Your task to perform on an android device: Is it going to rain this weekend? Image 0: 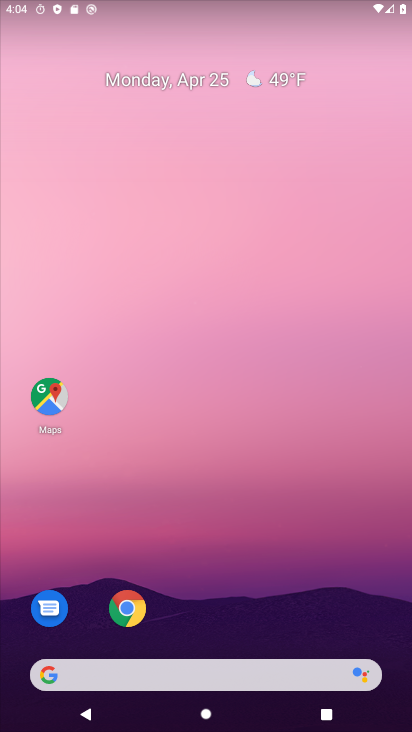
Step 0: drag from (219, 471) to (242, 176)
Your task to perform on an android device: Is it going to rain this weekend? Image 1: 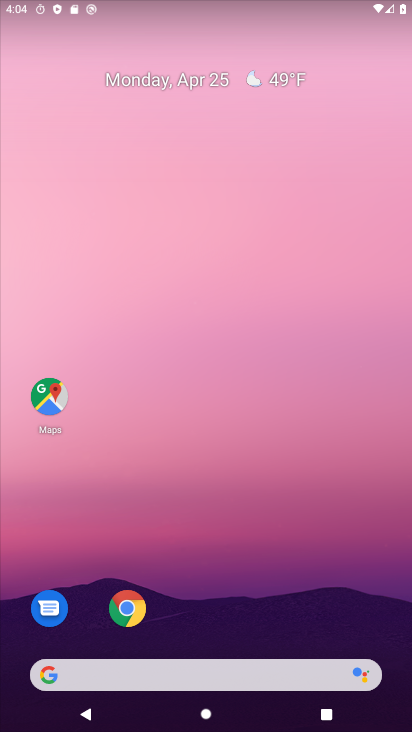
Step 1: drag from (199, 275) to (212, 173)
Your task to perform on an android device: Is it going to rain this weekend? Image 2: 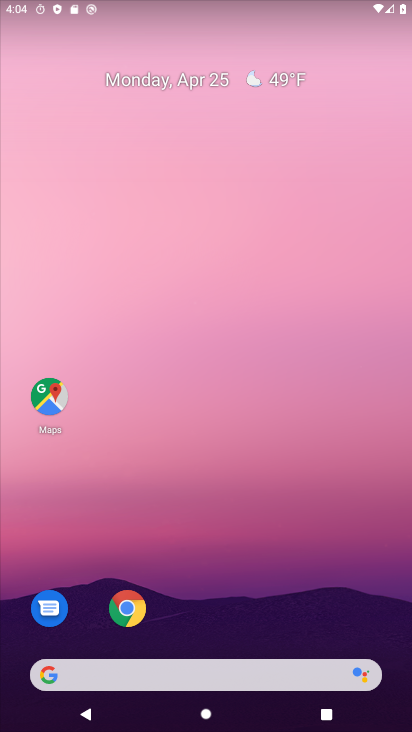
Step 2: drag from (197, 640) to (208, 113)
Your task to perform on an android device: Is it going to rain this weekend? Image 3: 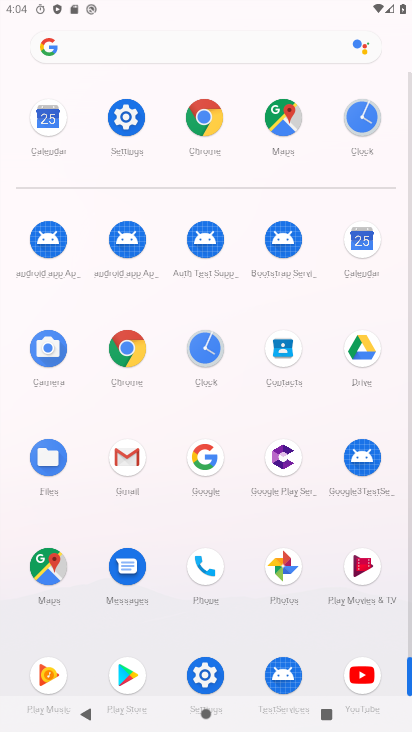
Step 3: click (200, 464)
Your task to perform on an android device: Is it going to rain this weekend? Image 4: 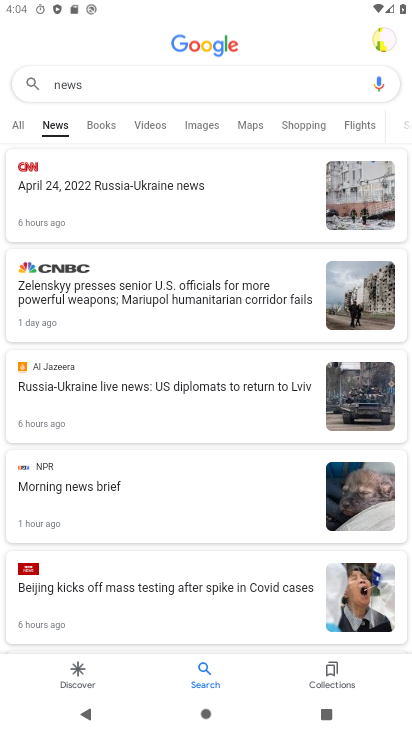
Step 4: click (202, 462)
Your task to perform on an android device: Is it going to rain this weekend? Image 5: 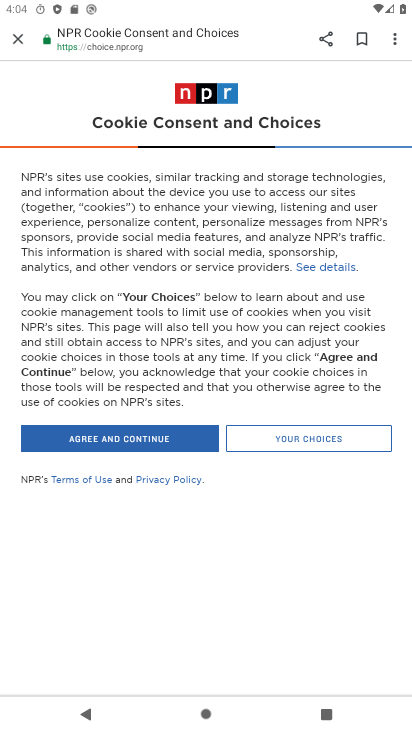
Step 5: click (17, 43)
Your task to perform on an android device: Is it going to rain this weekend? Image 6: 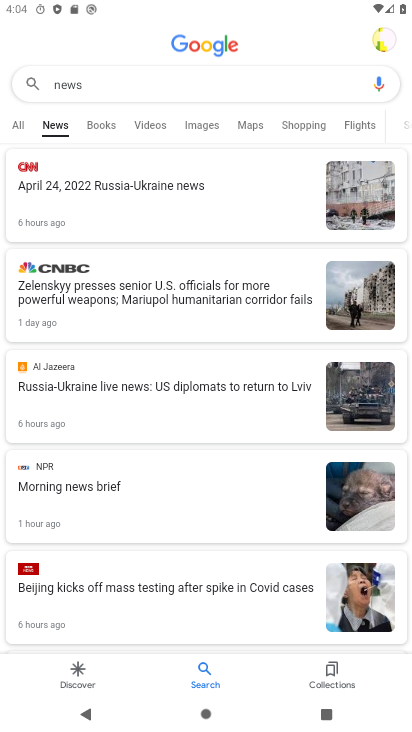
Step 6: click (121, 80)
Your task to perform on an android device: Is it going to rain this weekend? Image 7: 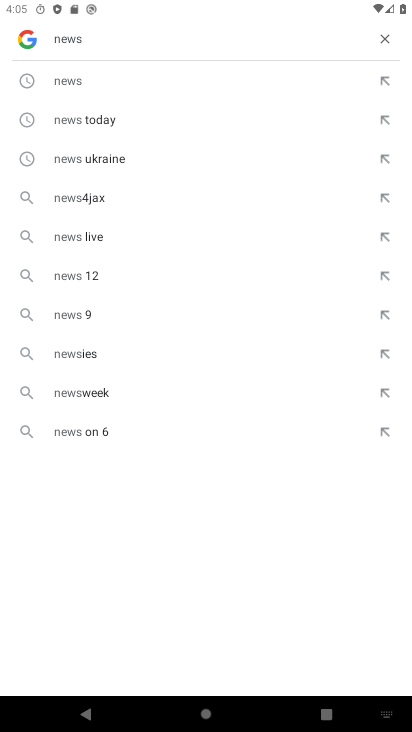
Step 7: click (384, 33)
Your task to perform on an android device: Is it going to rain this weekend? Image 8: 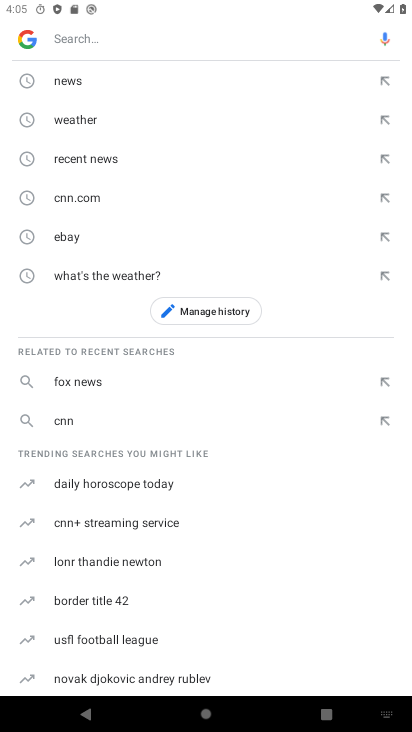
Step 8: click (109, 122)
Your task to perform on an android device: Is it going to rain this weekend? Image 9: 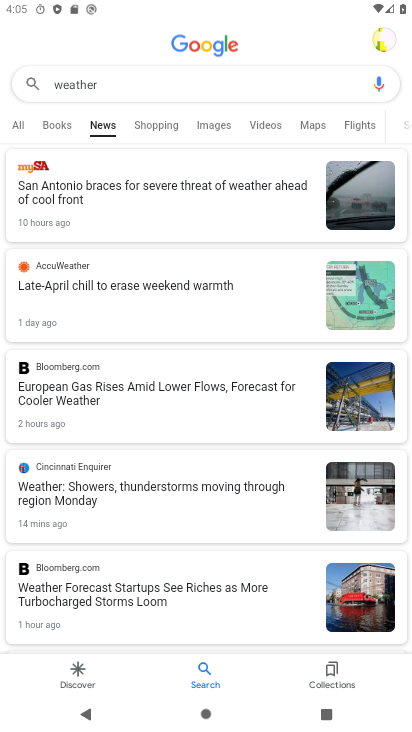
Step 9: click (16, 127)
Your task to perform on an android device: Is it going to rain this weekend? Image 10: 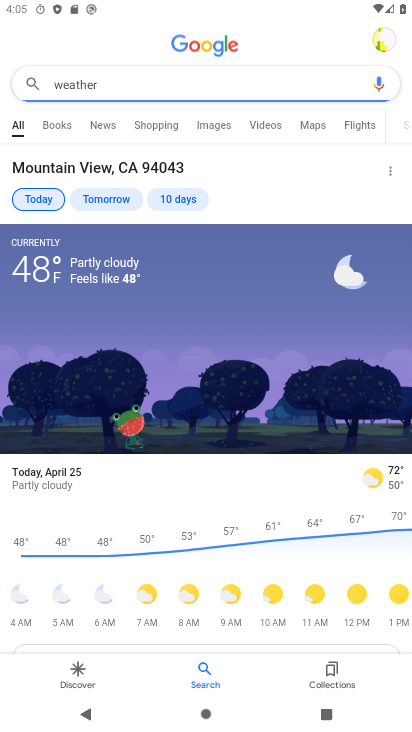
Step 10: click (183, 204)
Your task to perform on an android device: Is it going to rain this weekend? Image 11: 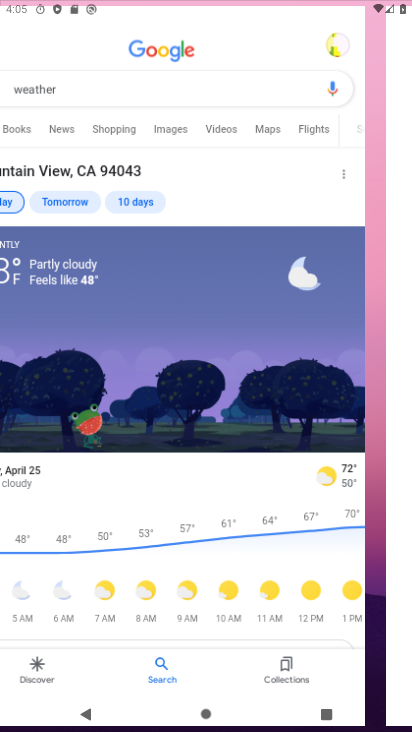
Step 11: click (183, 204)
Your task to perform on an android device: Is it going to rain this weekend? Image 12: 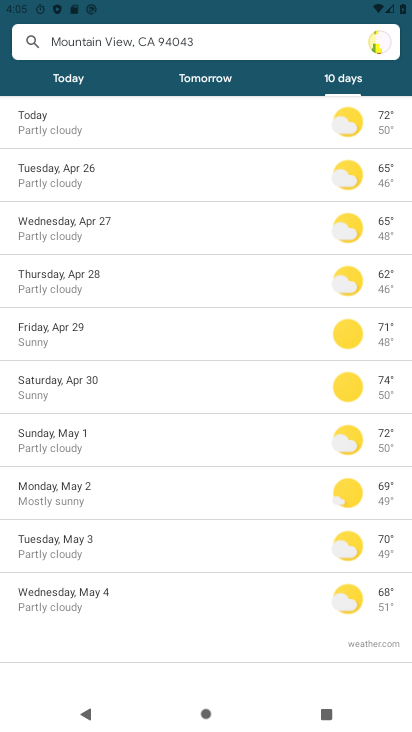
Step 12: task complete